Your task to perform on an android device: Open calendar and show me the second week of next month Image 0: 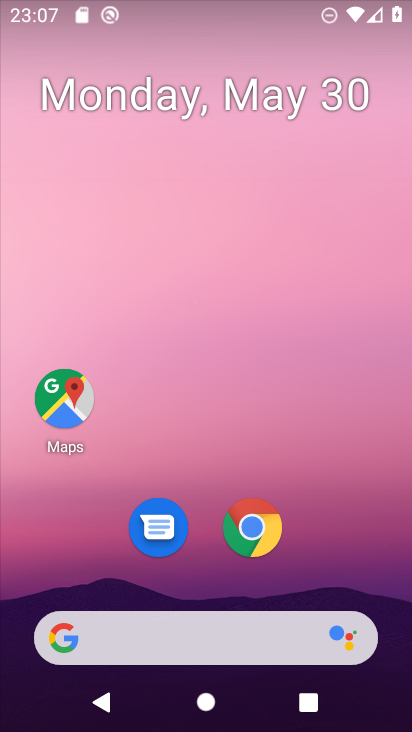
Step 0: drag from (329, 528) to (288, 212)
Your task to perform on an android device: Open calendar and show me the second week of next month Image 1: 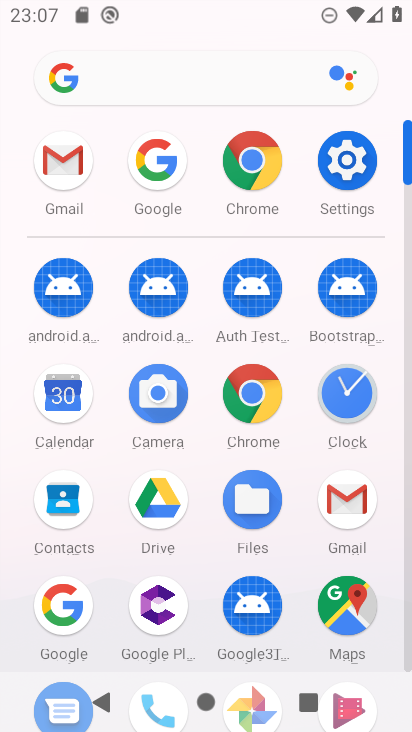
Step 1: click (52, 387)
Your task to perform on an android device: Open calendar and show me the second week of next month Image 2: 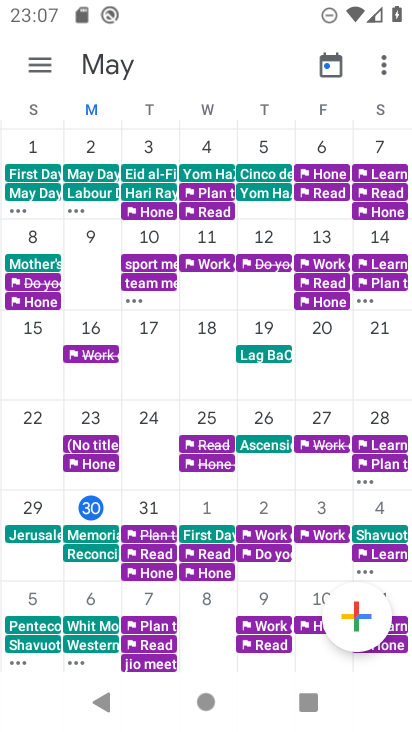
Step 2: task complete